Your task to perform on an android device: What's the weather going to be tomorrow? Image 0: 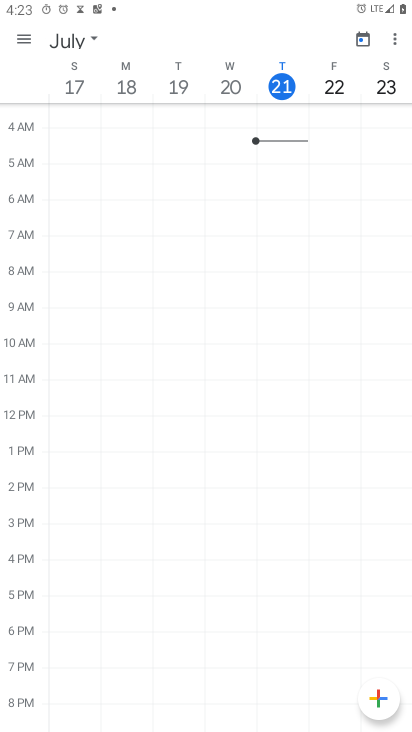
Step 0: press home button
Your task to perform on an android device: What's the weather going to be tomorrow? Image 1: 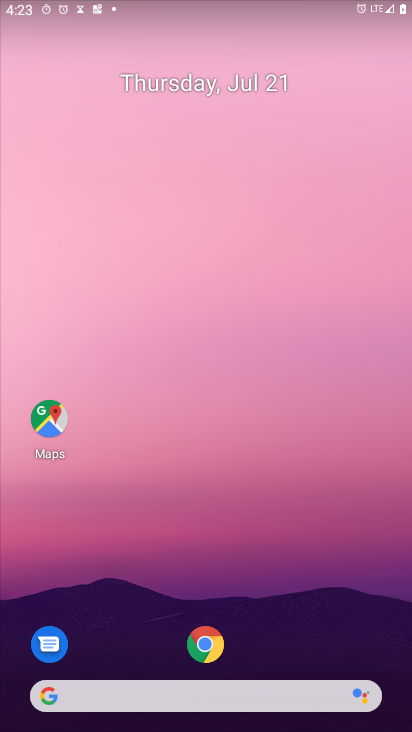
Step 1: click (45, 705)
Your task to perform on an android device: What's the weather going to be tomorrow? Image 2: 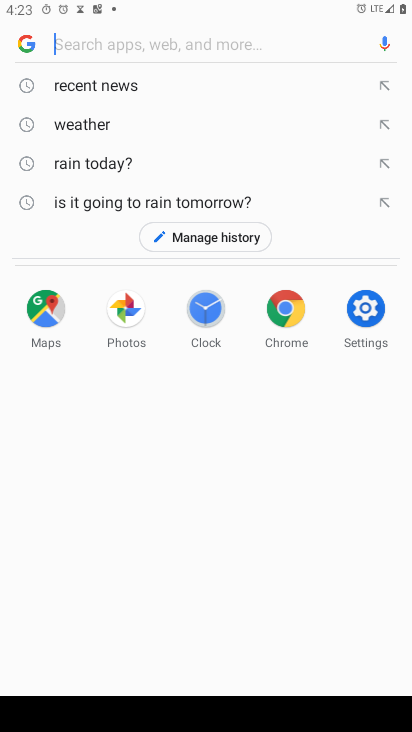
Step 2: type "weather going to be tomorrow?"
Your task to perform on an android device: What's the weather going to be tomorrow? Image 3: 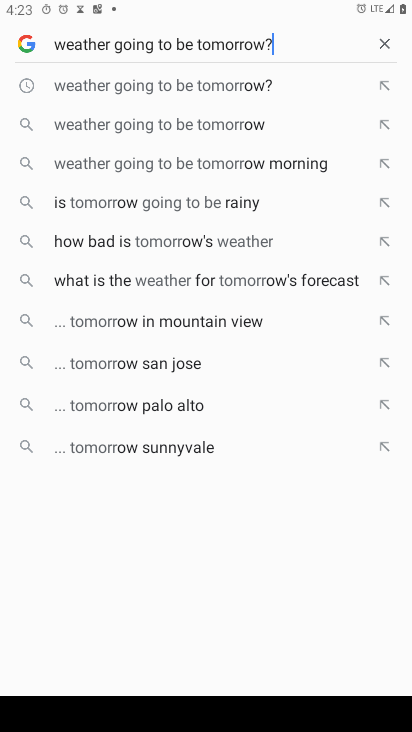
Step 3: press enter
Your task to perform on an android device: What's the weather going to be tomorrow? Image 4: 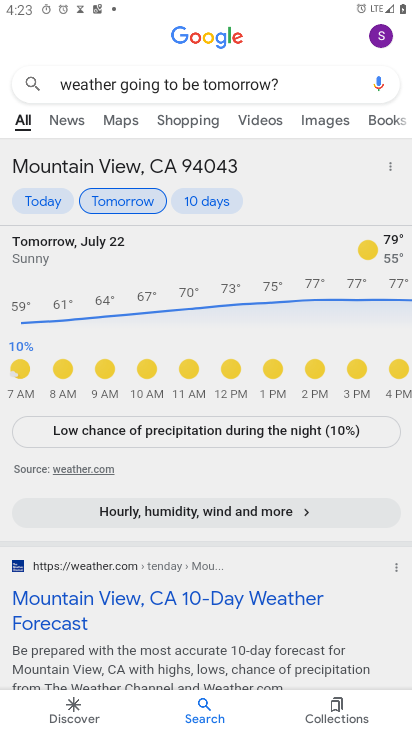
Step 4: task complete